Your task to perform on an android device: Open settings on Google Maps Image 0: 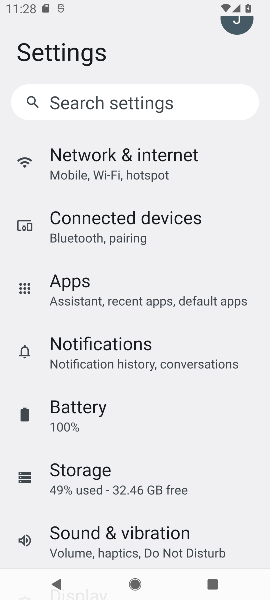
Step 0: task complete